Your task to perform on an android device: What's on my calendar tomorrow? Image 0: 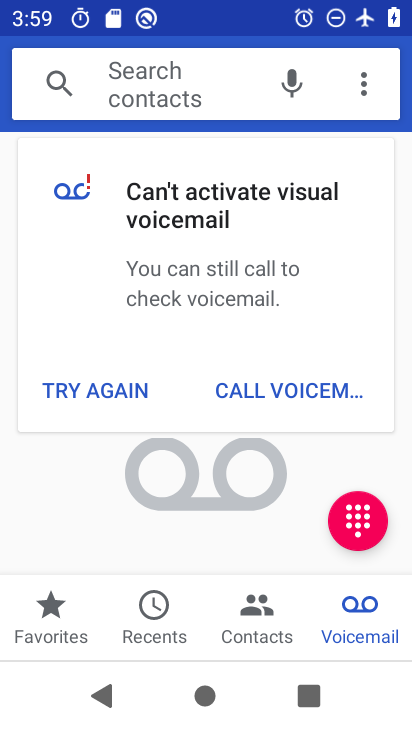
Step 0: press home button
Your task to perform on an android device: What's on my calendar tomorrow? Image 1: 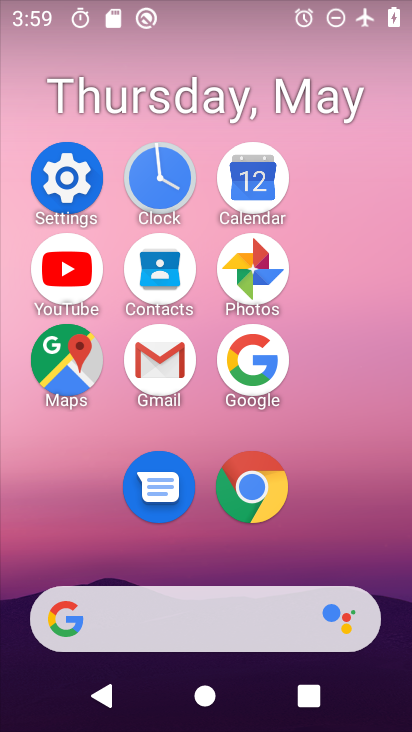
Step 1: click (240, 186)
Your task to perform on an android device: What's on my calendar tomorrow? Image 2: 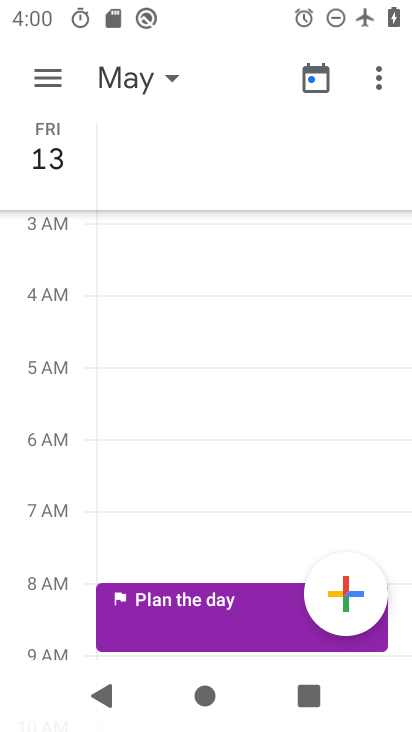
Step 2: task complete